Your task to perform on an android device: Open the stopwatch Image 0: 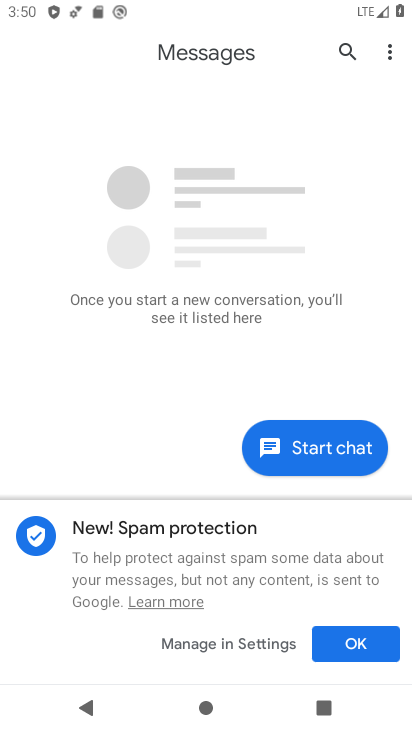
Step 0: press back button
Your task to perform on an android device: Open the stopwatch Image 1: 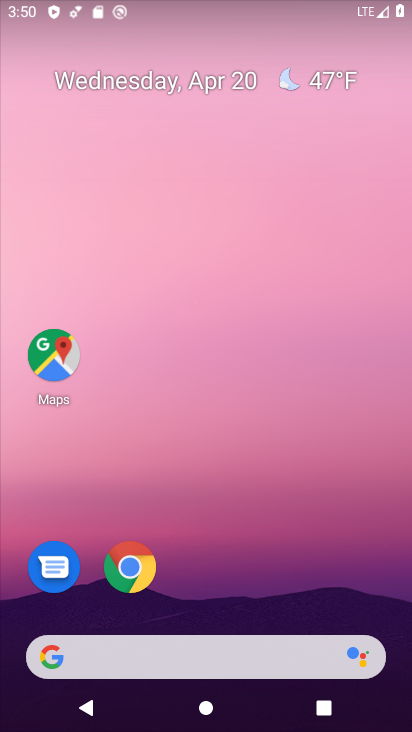
Step 1: drag from (297, 562) to (231, 27)
Your task to perform on an android device: Open the stopwatch Image 2: 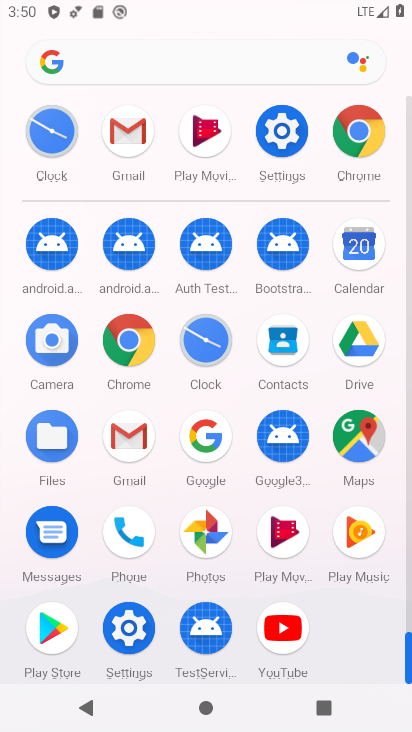
Step 2: click (47, 133)
Your task to perform on an android device: Open the stopwatch Image 3: 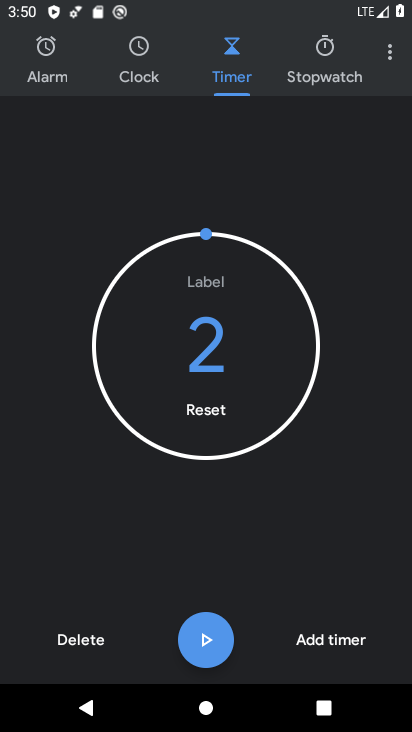
Step 3: click (327, 66)
Your task to perform on an android device: Open the stopwatch Image 4: 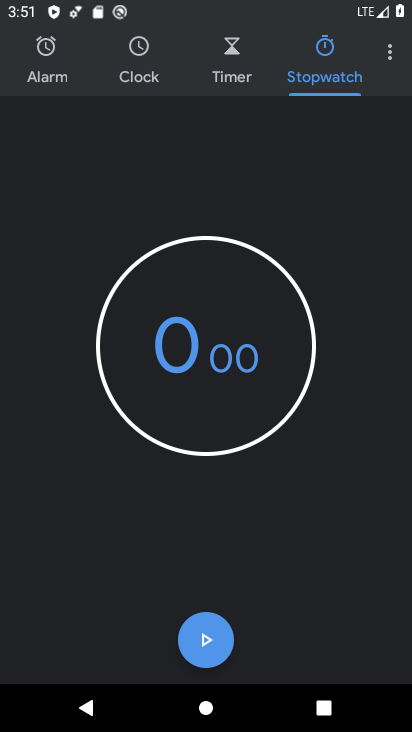
Step 4: task complete